Your task to perform on an android device: turn off wifi Image 0: 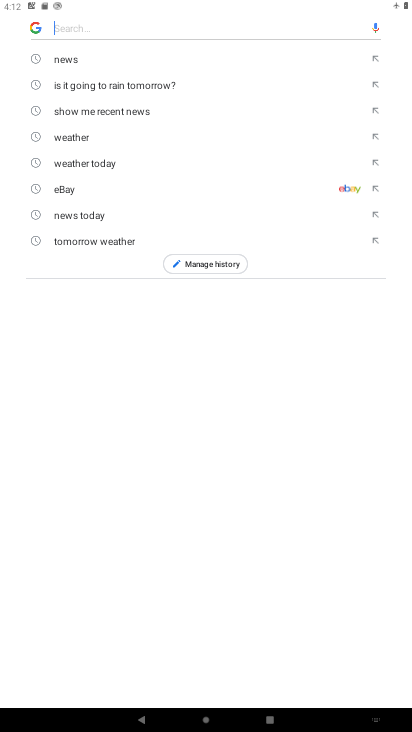
Step 0: press home button
Your task to perform on an android device: turn off wifi Image 1: 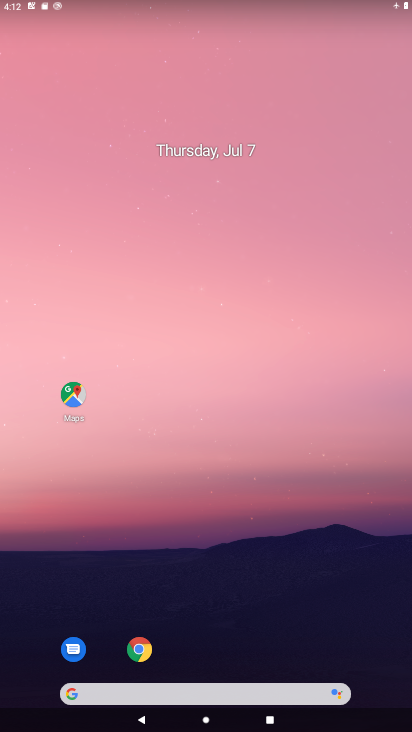
Step 1: drag from (324, 635) to (303, 108)
Your task to perform on an android device: turn off wifi Image 2: 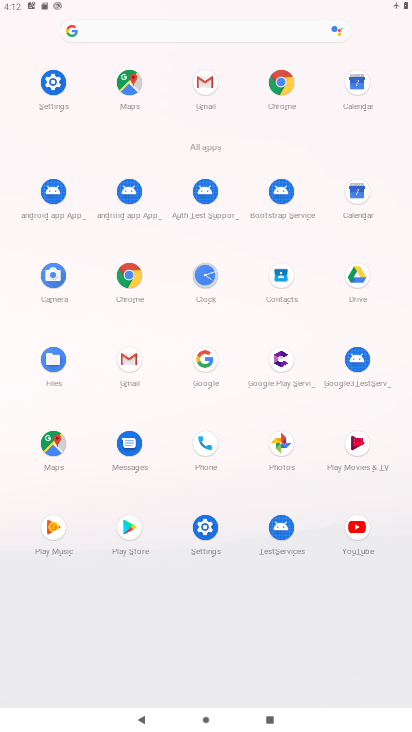
Step 2: click (207, 527)
Your task to perform on an android device: turn off wifi Image 3: 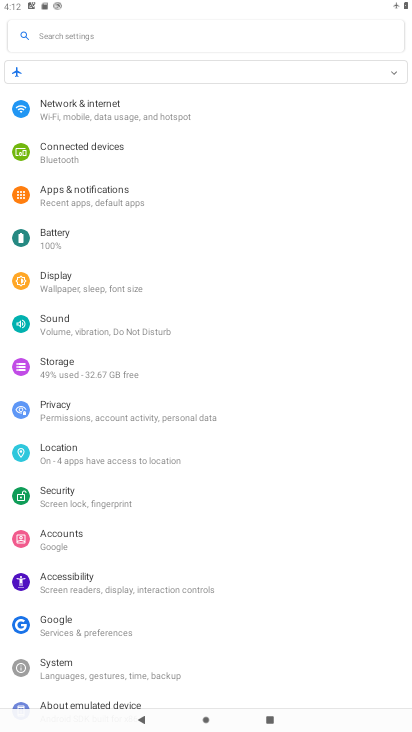
Step 3: click (87, 102)
Your task to perform on an android device: turn off wifi Image 4: 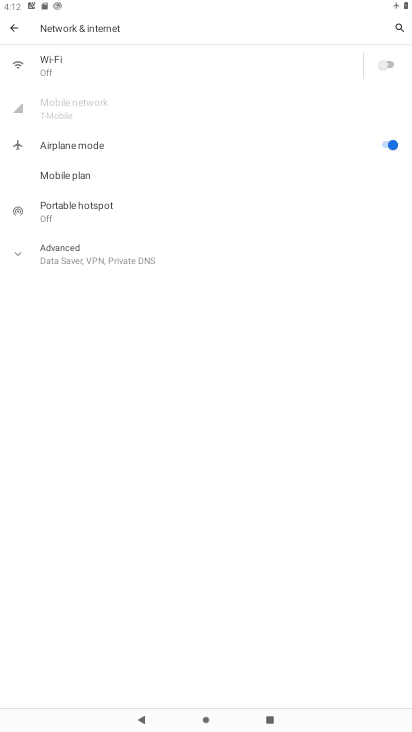
Step 4: task complete